Your task to perform on an android device: Open wifi settings Image 0: 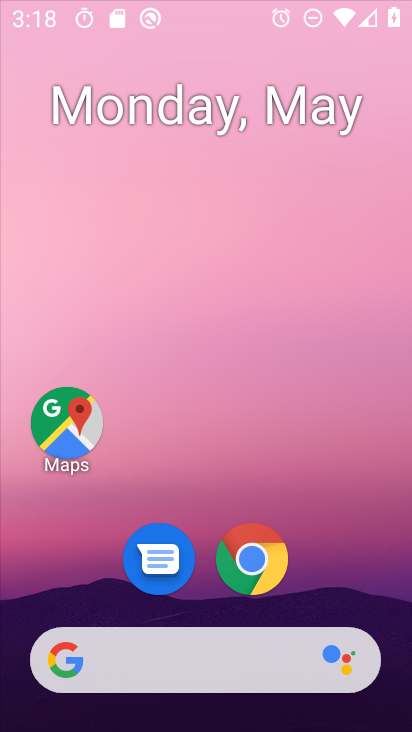
Step 0: drag from (213, 591) to (301, 42)
Your task to perform on an android device: Open wifi settings Image 1: 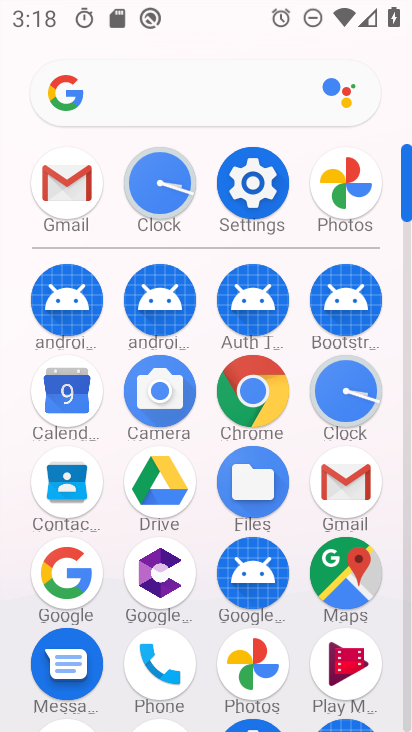
Step 1: click (275, 189)
Your task to perform on an android device: Open wifi settings Image 2: 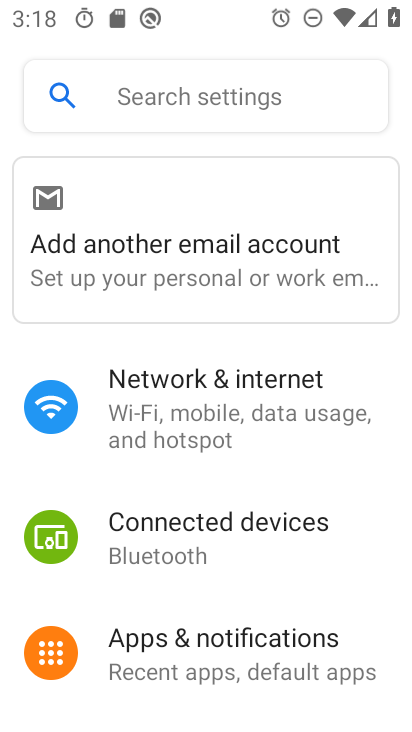
Step 2: click (165, 416)
Your task to perform on an android device: Open wifi settings Image 3: 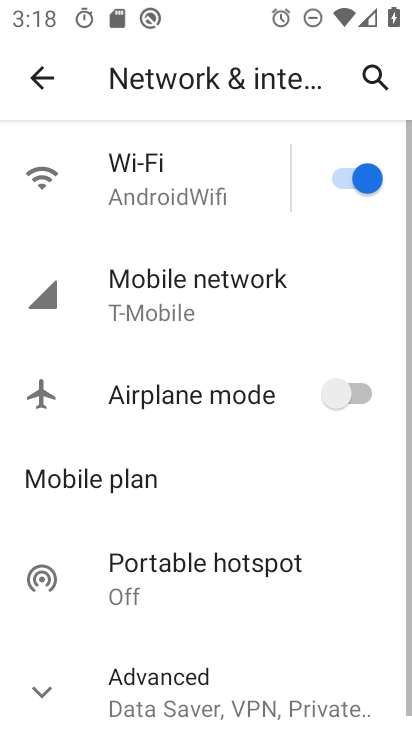
Step 3: drag from (260, 649) to (283, 284)
Your task to perform on an android device: Open wifi settings Image 4: 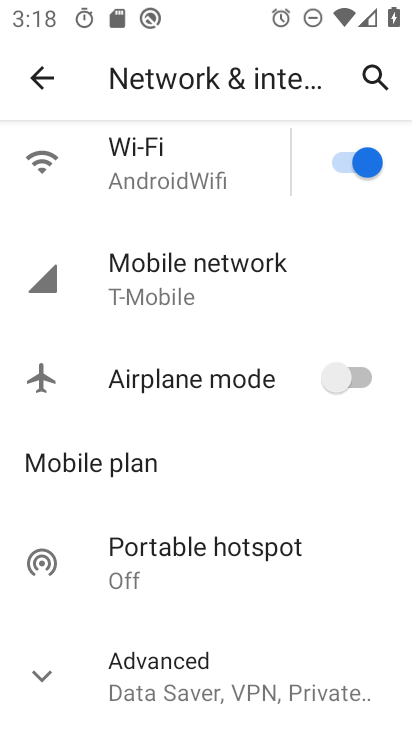
Step 4: click (173, 703)
Your task to perform on an android device: Open wifi settings Image 5: 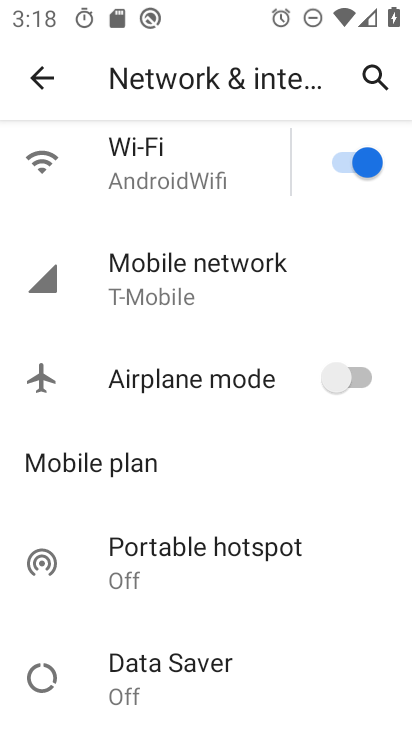
Step 5: click (180, 153)
Your task to perform on an android device: Open wifi settings Image 6: 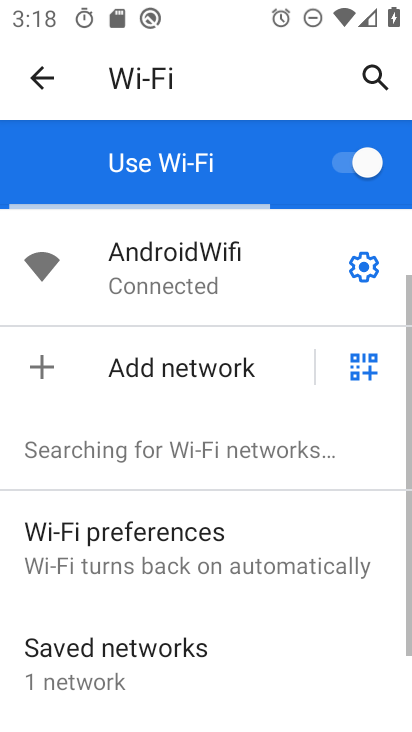
Step 6: task complete